Your task to perform on an android device: Open privacy settings Image 0: 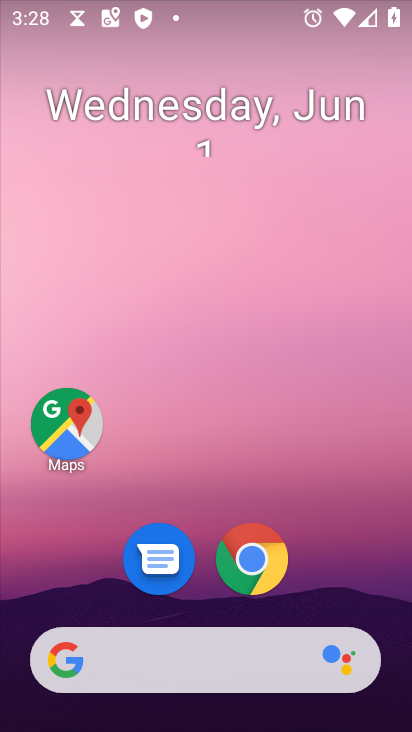
Step 0: drag from (334, 590) to (270, 27)
Your task to perform on an android device: Open privacy settings Image 1: 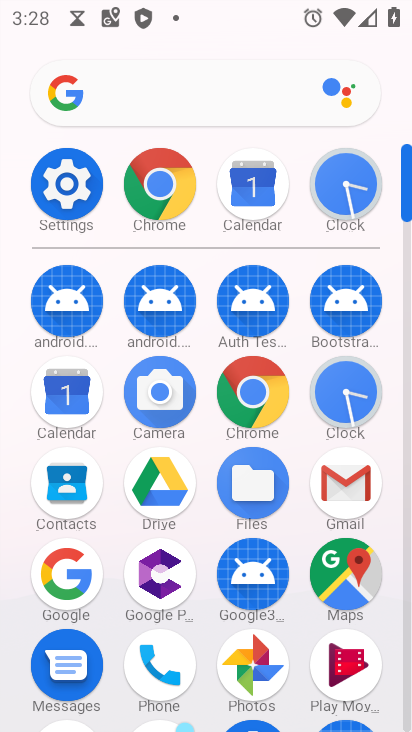
Step 1: click (68, 186)
Your task to perform on an android device: Open privacy settings Image 2: 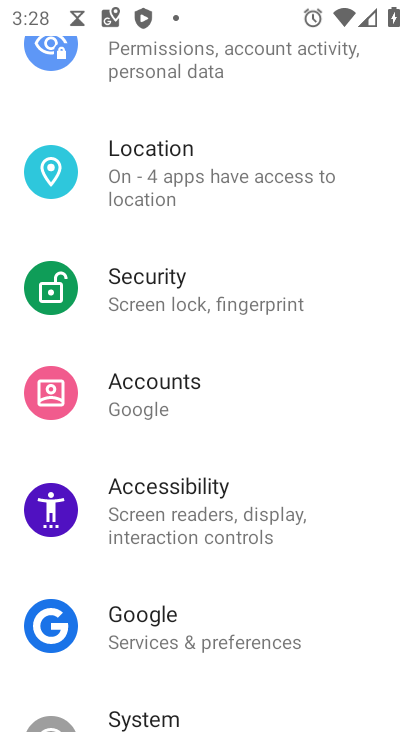
Step 2: drag from (104, 171) to (187, 393)
Your task to perform on an android device: Open privacy settings Image 3: 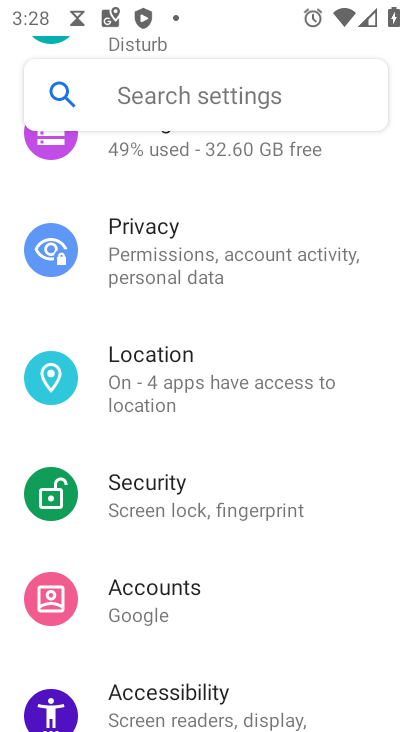
Step 3: click (164, 256)
Your task to perform on an android device: Open privacy settings Image 4: 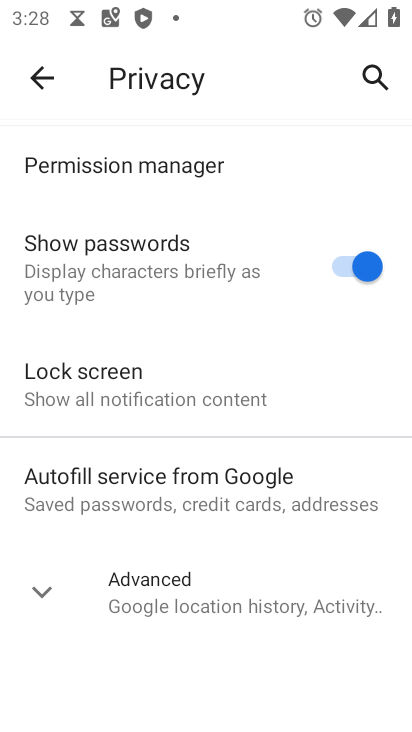
Step 4: task complete